Your task to perform on an android device: Clear all items from cart on bestbuy.com. Search for "bose quietcomfort 35" on bestbuy.com, select the first entry, add it to the cart, then select checkout. Image 0: 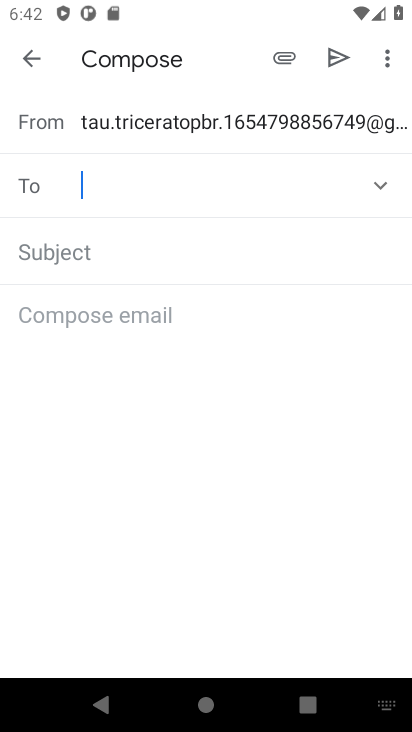
Step 0: press home button
Your task to perform on an android device: Clear all items from cart on bestbuy.com. Search for "bose quietcomfort 35" on bestbuy.com, select the first entry, add it to the cart, then select checkout. Image 1: 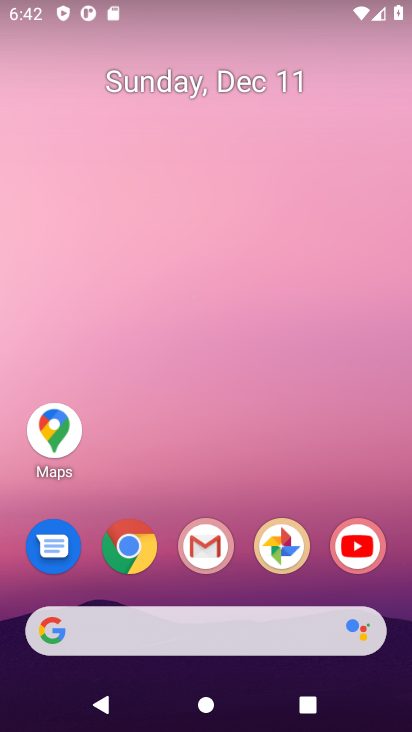
Step 1: click (135, 547)
Your task to perform on an android device: Clear all items from cart on bestbuy.com. Search for "bose quietcomfort 35" on bestbuy.com, select the first entry, add it to the cart, then select checkout. Image 2: 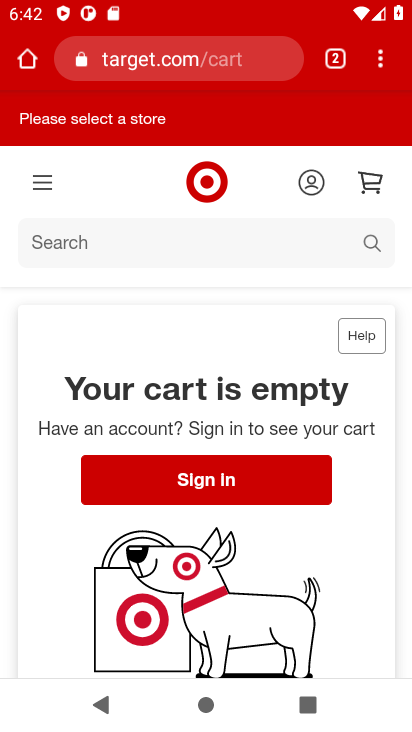
Step 2: click (157, 60)
Your task to perform on an android device: Clear all items from cart on bestbuy.com. Search for "bose quietcomfort 35" on bestbuy.com, select the first entry, add it to the cart, then select checkout. Image 3: 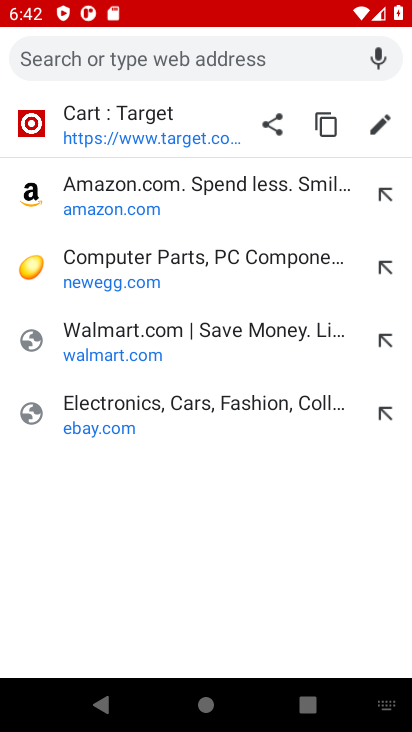
Step 3: type "bestbuy.com"
Your task to perform on an android device: Clear all items from cart on bestbuy.com. Search for "bose quietcomfort 35" on bestbuy.com, select the first entry, add it to the cart, then select checkout. Image 4: 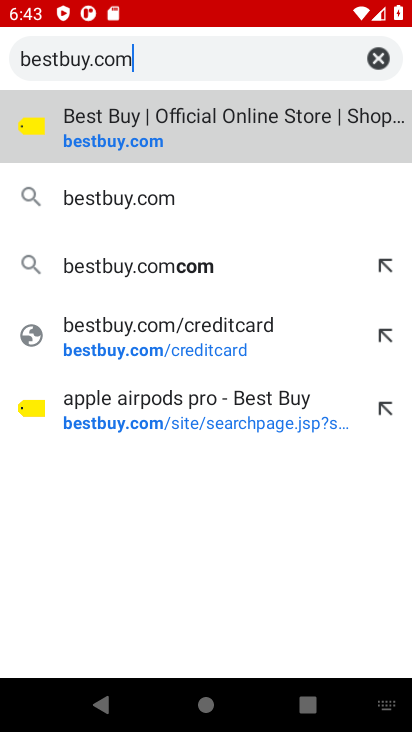
Step 4: click (109, 144)
Your task to perform on an android device: Clear all items from cart on bestbuy.com. Search for "bose quietcomfort 35" on bestbuy.com, select the first entry, add it to the cart, then select checkout. Image 5: 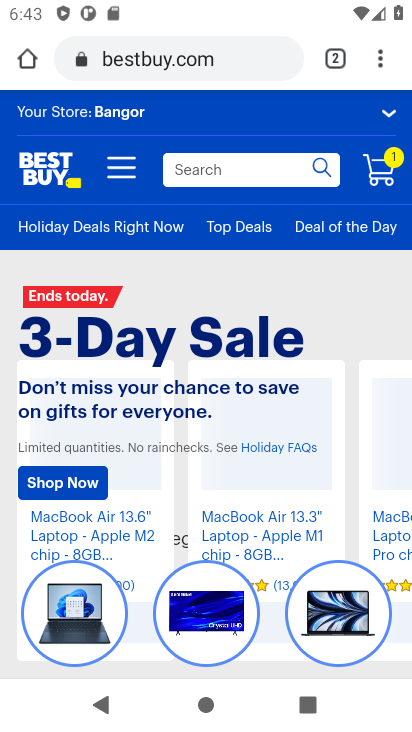
Step 5: click (378, 179)
Your task to perform on an android device: Clear all items from cart on bestbuy.com. Search for "bose quietcomfort 35" on bestbuy.com, select the first entry, add it to the cart, then select checkout. Image 6: 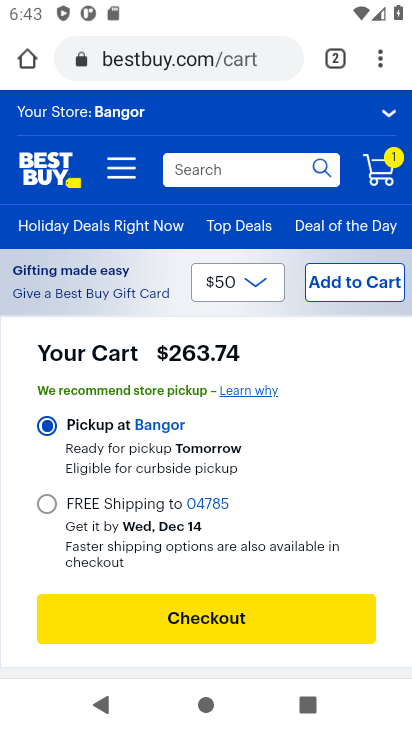
Step 6: drag from (311, 370) to (272, 146)
Your task to perform on an android device: Clear all items from cart on bestbuy.com. Search for "bose quietcomfort 35" on bestbuy.com, select the first entry, add it to the cart, then select checkout. Image 7: 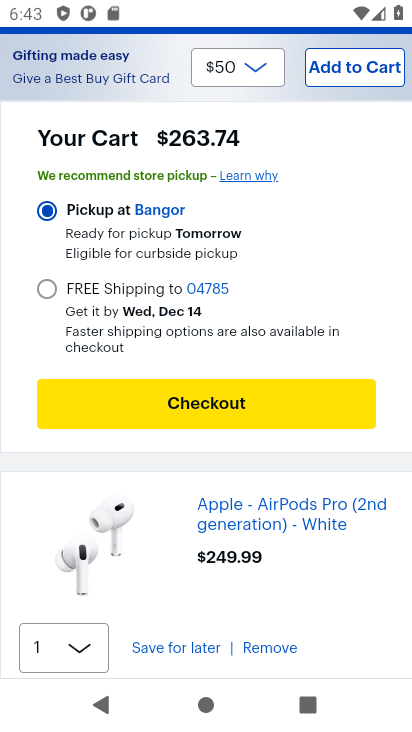
Step 7: click (260, 649)
Your task to perform on an android device: Clear all items from cart on bestbuy.com. Search for "bose quietcomfort 35" on bestbuy.com, select the first entry, add it to the cart, then select checkout. Image 8: 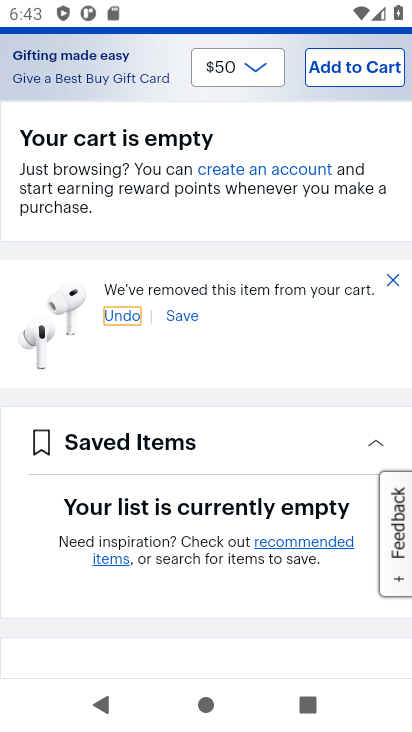
Step 8: drag from (264, 150) to (243, 436)
Your task to perform on an android device: Clear all items from cart on bestbuy.com. Search for "bose quietcomfort 35" on bestbuy.com, select the first entry, add it to the cart, then select checkout. Image 9: 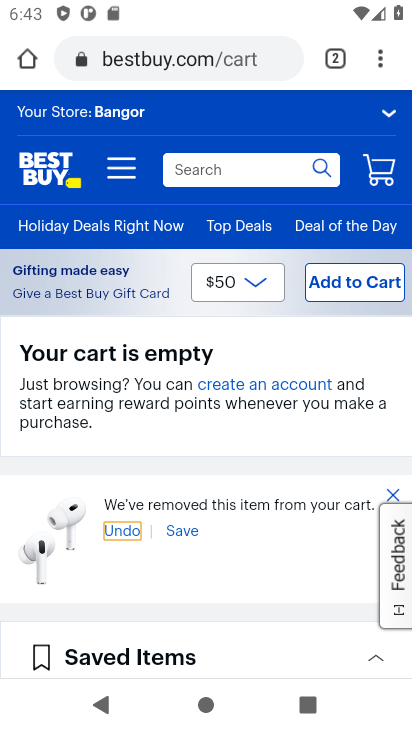
Step 9: click (186, 169)
Your task to perform on an android device: Clear all items from cart on bestbuy.com. Search for "bose quietcomfort 35" on bestbuy.com, select the first entry, add it to the cart, then select checkout. Image 10: 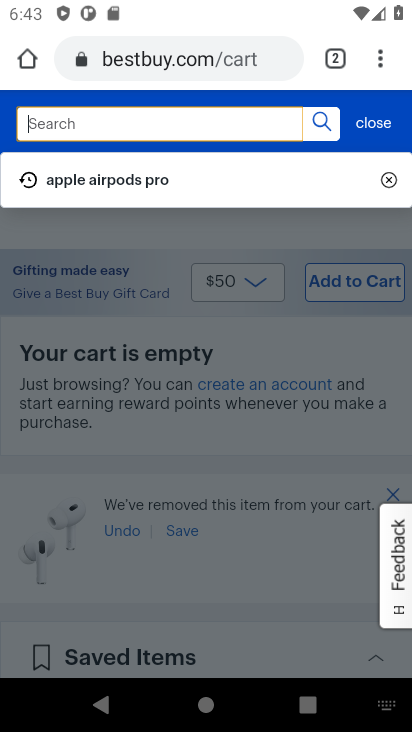
Step 10: type "bose quietcomfort 35"
Your task to perform on an android device: Clear all items from cart on bestbuy.com. Search for "bose quietcomfort 35" on bestbuy.com, select the first entry, add it to the cart, then select checkout. Image 11: 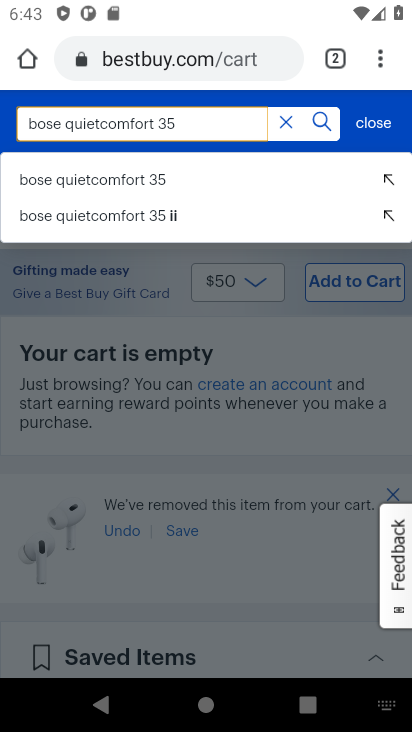
Step 11: click (149, 185)
Your task to perform on an android device: Clear all items from cart on bestbuy.com. Search for "bose quietcomfort 35" on bestbuy.com, select the first entry, add it to the cart, then select checkout. Image 12: 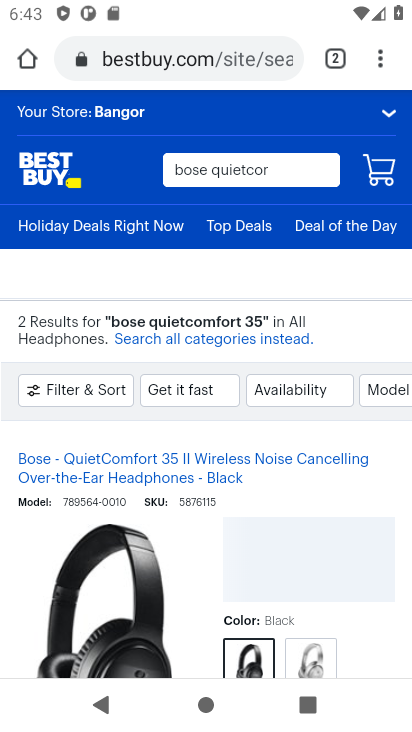
Step 12: task complete